Your task to perform on an android device: Open privacy settings Image 0: 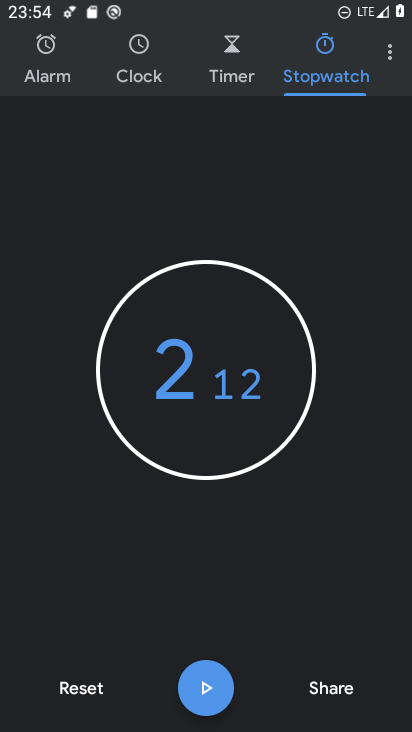
Step 0: press home button
Your task to perform on an android device: Open privacy settings Image 1: 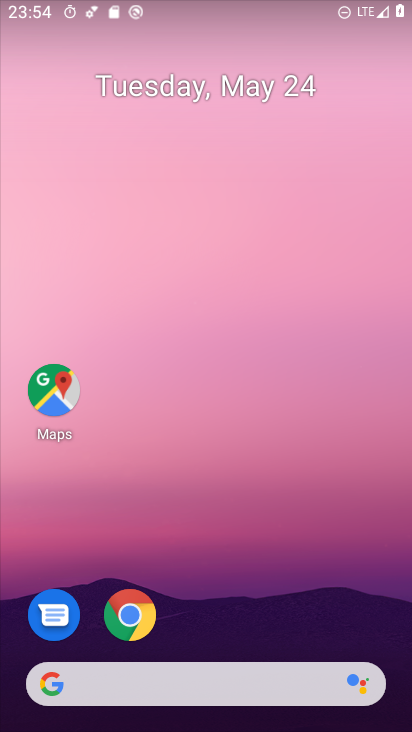
Step 1: drag from (279, 635) to (411, 57)
Your task to perform on an android device: Open privacy settings Image 2: 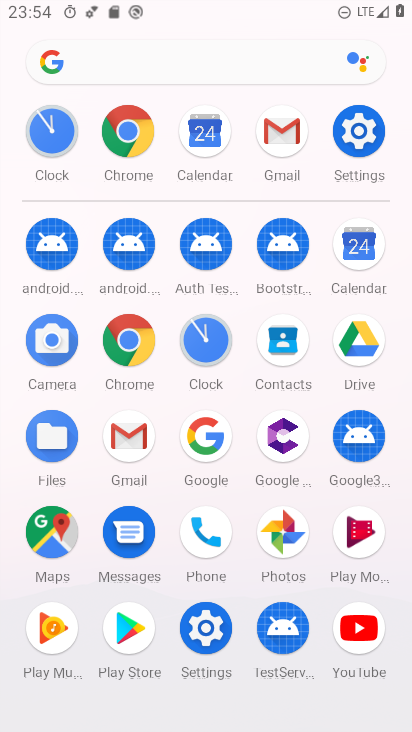
Step 2: click (365, 148)
Your task to perform on an android device: Open privacy settings Image 3: 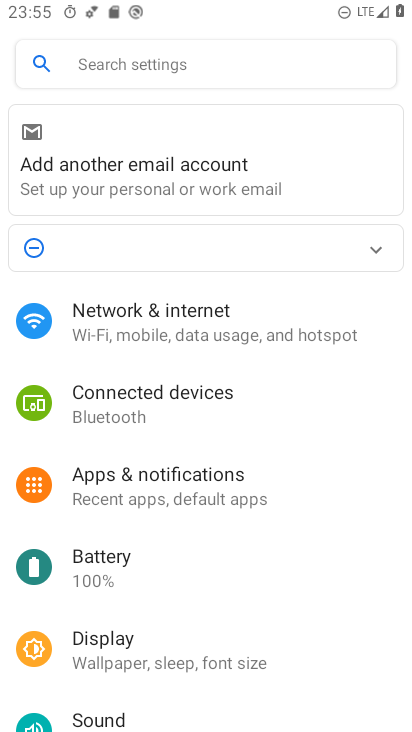
Step 3: drag from (127, 641) to (248, 296)
Your task to perform on an android device: Open privacy settings Image 4: 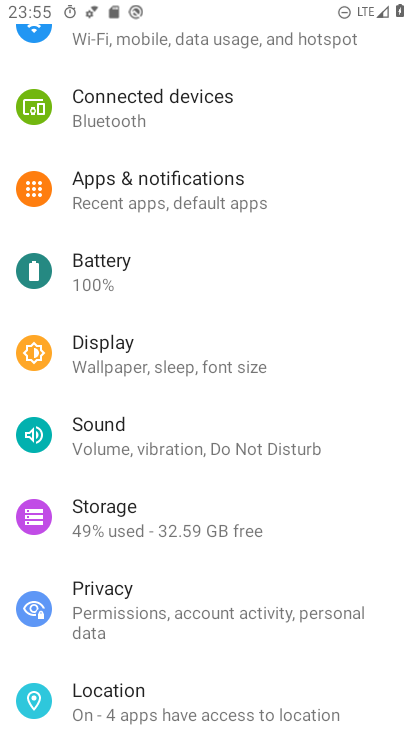
Step 4: click (143, 595)
Your task to perform on an android device: Open privacy settings Image 5: 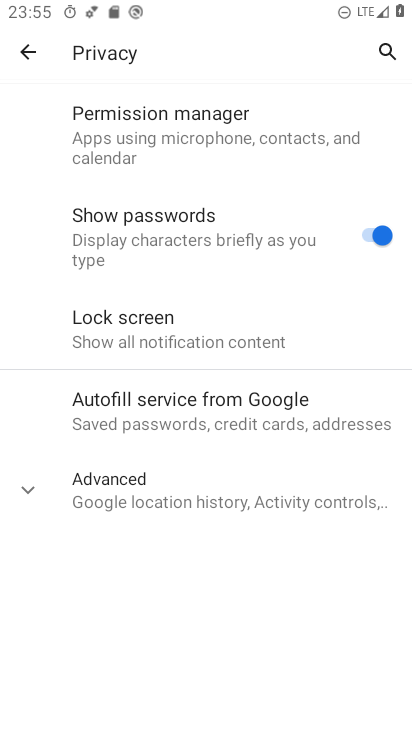
Step 5: task complete